Your task to perform on an android device: set default search engine in the chrome app Image 0: 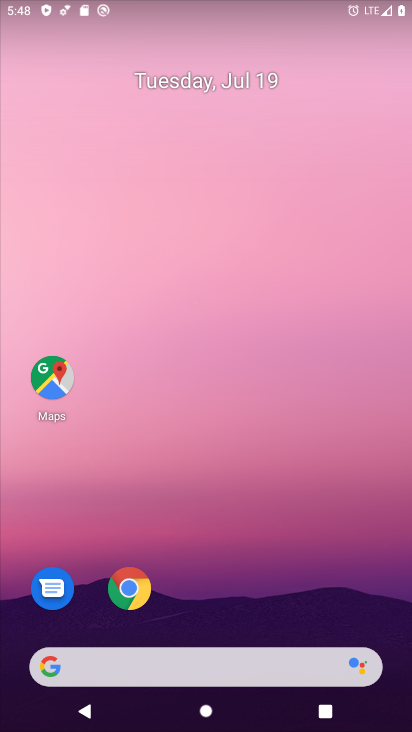
Step 0: click (121, 598)
Your task to perform on an android device: set default search engine in the chrome app Image 1: 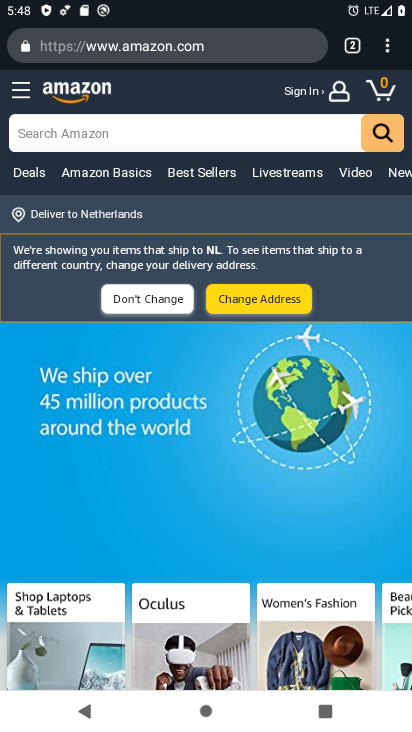
Step 1: click (398, 45)
Your task to perform on an android device: set default search engine in the chrome app Image 2: 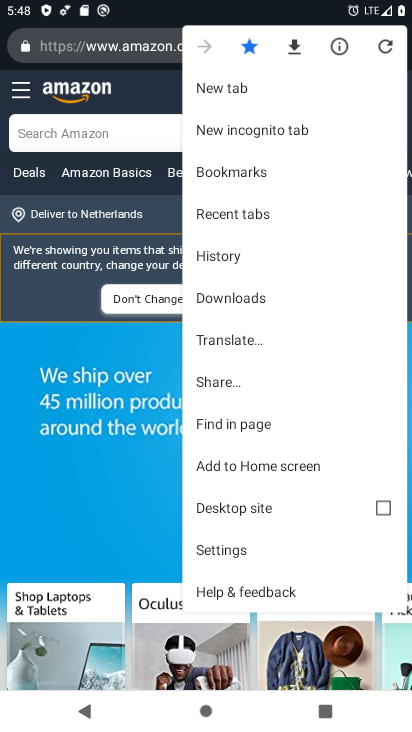
Step 2: click (282, 223)
Your task to perform on an android device: set default search engine in the chrome app Image 3: 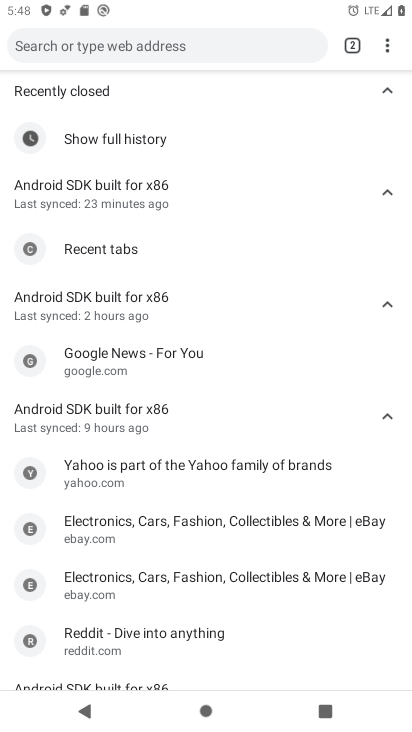
Step 3: click (380, 62)
Your task to perform on an android device: set default search engine in the chrome app Image 4: 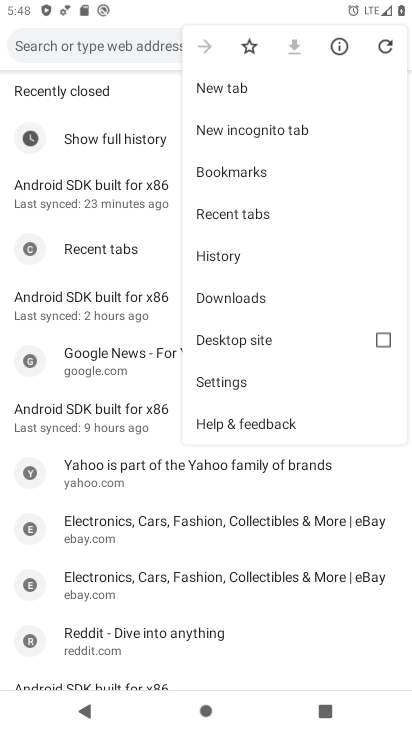
Step 4: click (241, 387)
Your task to perform on an android device: set default search engine in the chrome app Image 5: 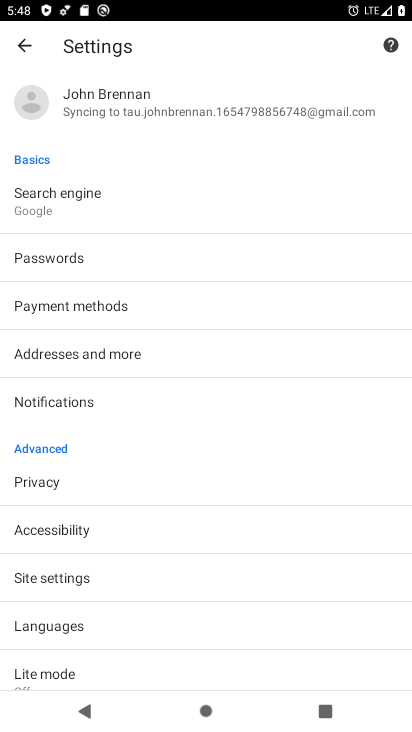
Step 5: click (155, 199)
Your task to perform on an android device: set default search engine in the chrome app Image 6: 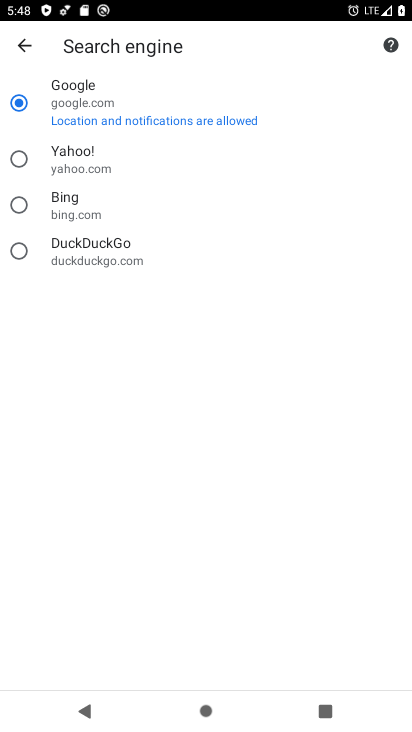
Step 6: click (155, 199)
Your task to perform on an android device: set default search engine in the chrome app Image 7: 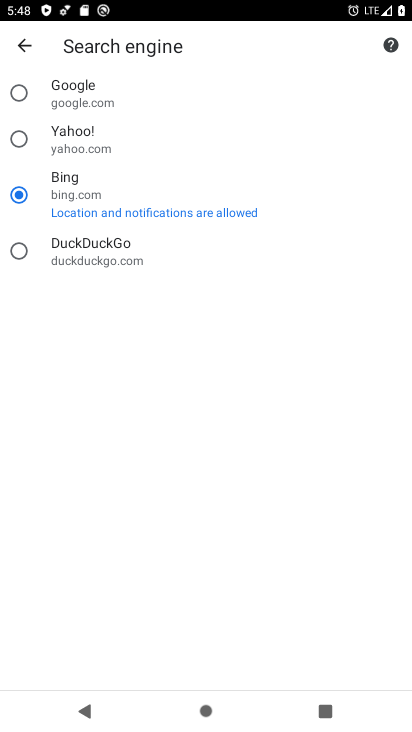
Step 7: task complete